Your task to perform on an android device: What's the weather going to be tomorrow? Image 0: 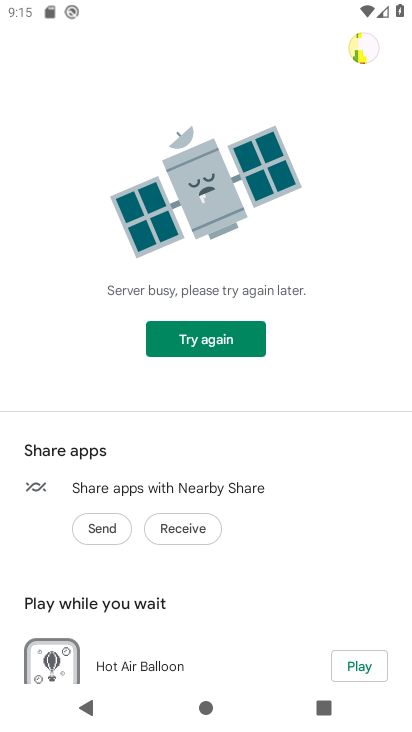
Step 0: press home button
Your task to perform on an android device: What's the weather going to be tomorrow? Image 1: 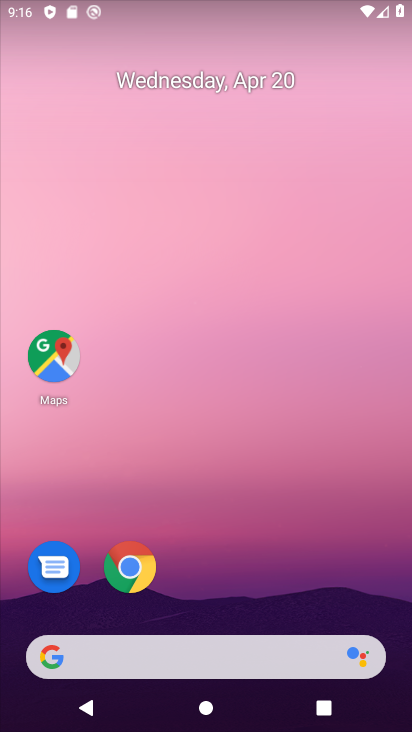
Step 1: drag from (232, 568) to (232, 42)
Your task to perform on an android device: What's the weather going to be tomorrow? Image 2: 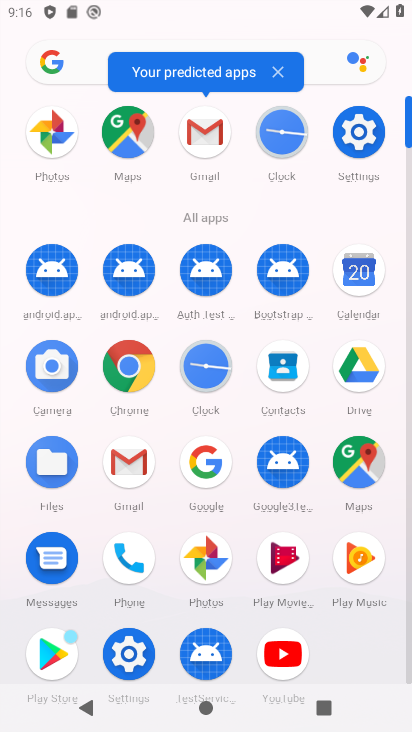
Step 2: click (200, 459)
Your task to perform on an android device: What's the weather going to be tomorrow? Image 3: 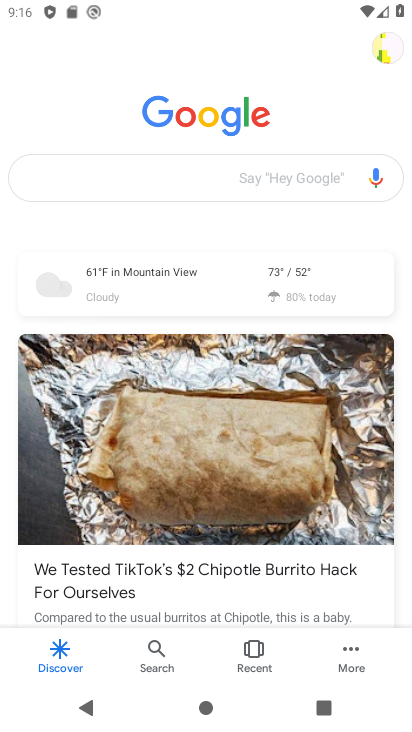
Step 3: click (194, 276)
Your task to perform on an android device: What's the weather going to be tomorrow? Image 4: 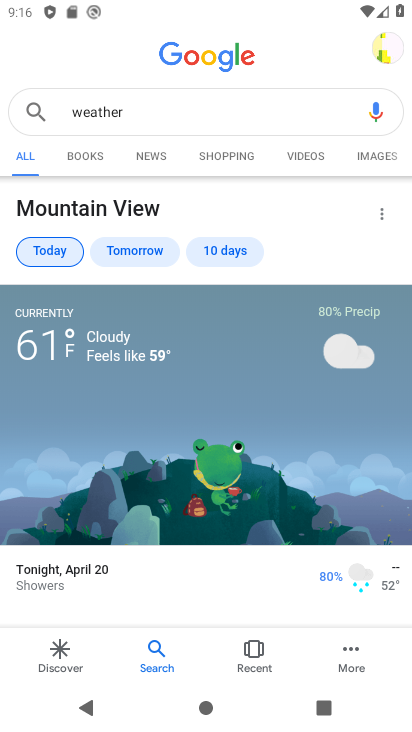
Step 4: click (141, 247)
Your task to perform on an android device: What's the weather going to be tomorrow? Image 5: 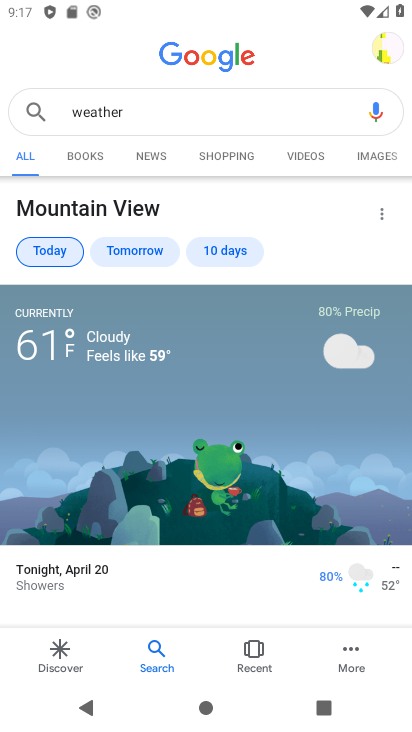
Step 5: click (132, 254)
Your task to perform on an android device: What's the weather going to be tomorrow? Image 6: 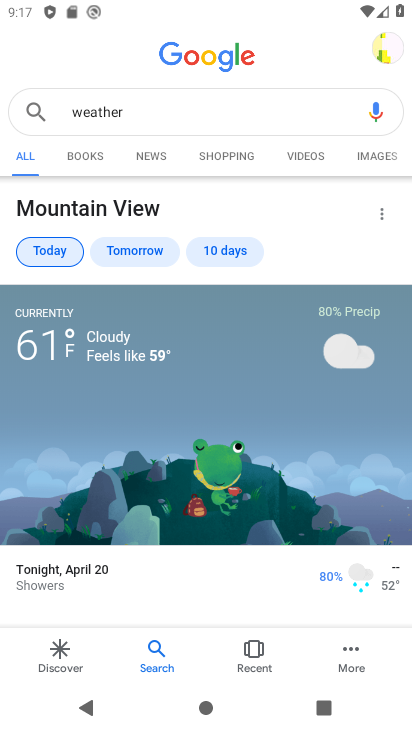
Step 6: click (132, 254)
Your task to perform on an android device: What's the weather going to be tomorrow? Image 7: 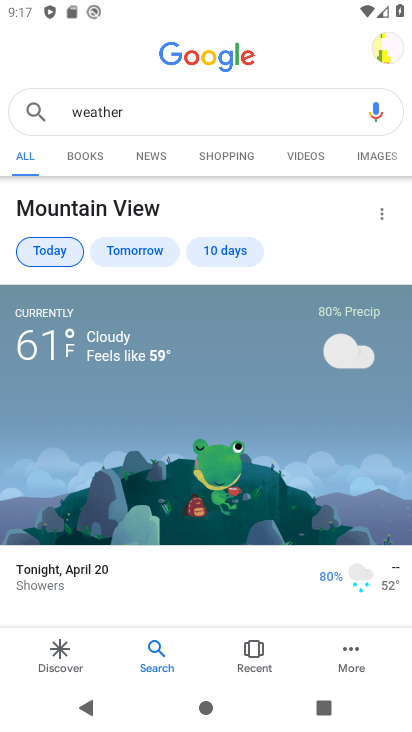
Step 7: click (150, 242)
Your task to perform on an android device: What's the weather going to be tomorrow? Image 8: 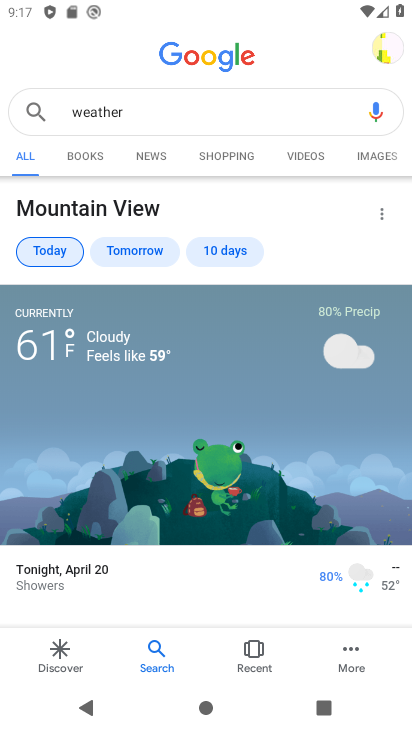
Step 8: click (263, 256)
Your task to perform on an android device: What's the weather going to be tomorrow? Image 9: 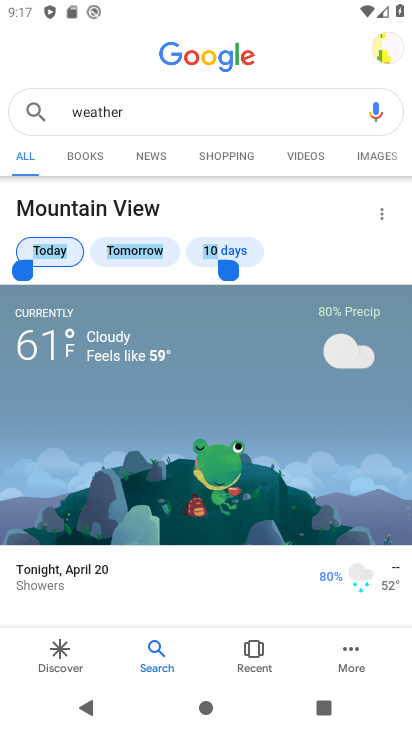
Step 9: click (101, 355)
Your task to perform on an android device: What's the weather going to be tomorrow? Image 10: 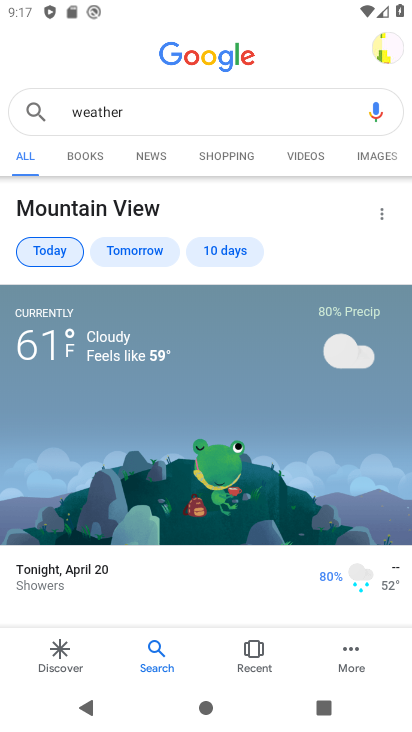
Step 10: click (141, 244)
Your task to perform on an android device: What's the weather going to be tomorrow? Image 11: 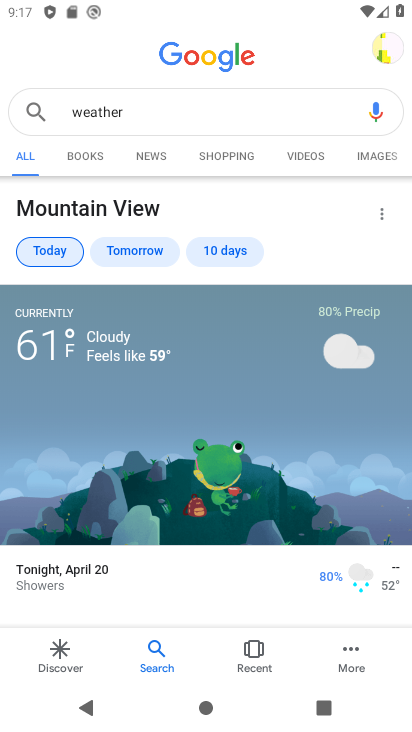
Step 11: task complete